Your task to perform on an android device: Do I have any events today? Image 0: 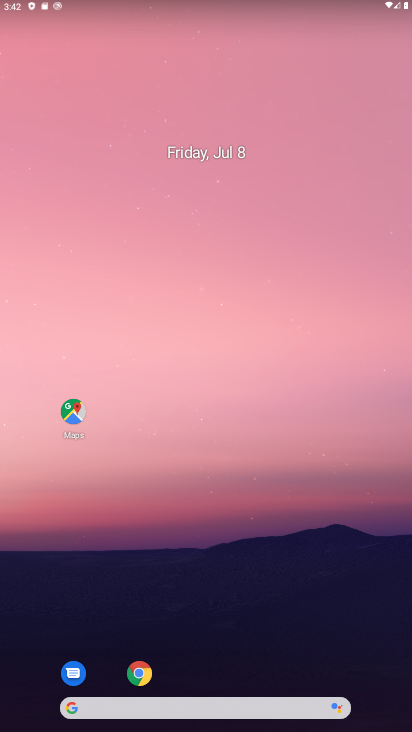
Step 0: drag from (307, 677) to (317, 5)
Your task to perform on an android device: Do I have any events today? Image 1: 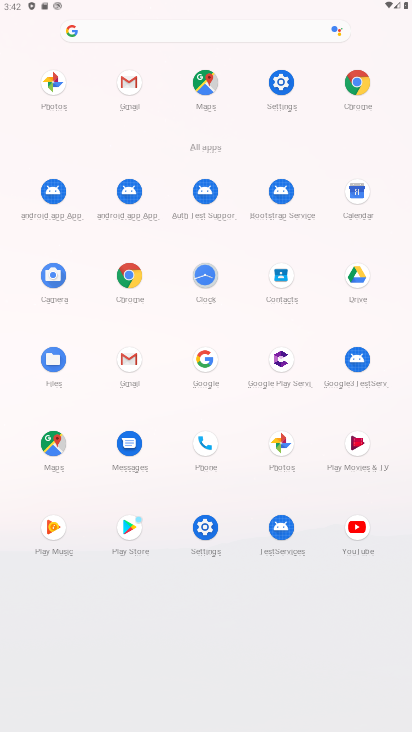
Step 1: click (357, 192)
Your task to perform on an android device: Do I have any events today? Image 2: 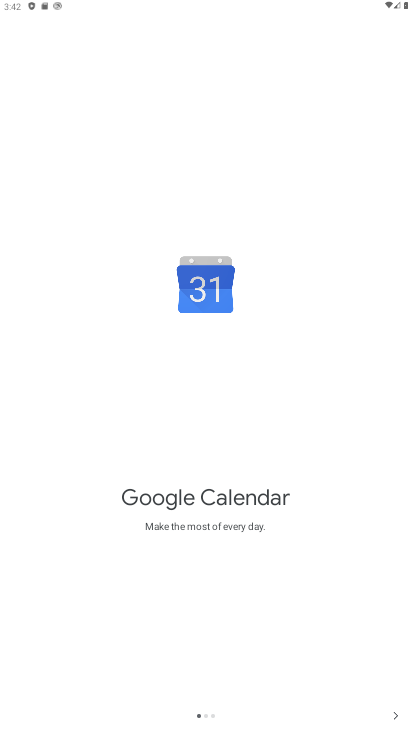
Step 2: click (396, 717)
Your task to perform on an android device: Do I have any events today? Image 3: 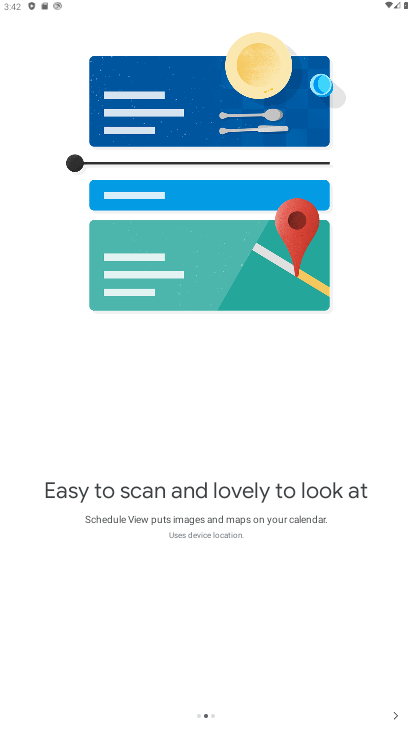
Step 3: click (396, 717)
Your task to perform on an android device: Do I have any events today? Image 4: 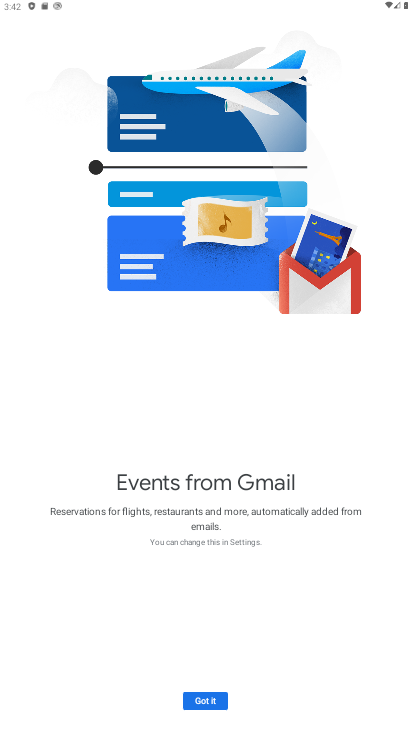
Step 4: click (213, 699)
Your task to perform on an android device: Do I have any events today? Image 5: 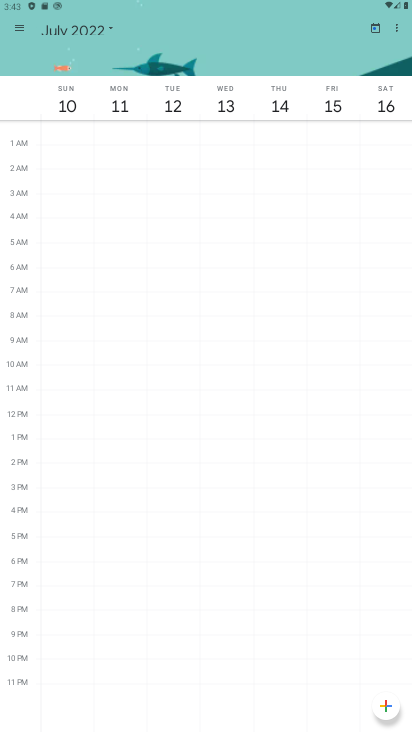
Step 5: click (19, 31)
Your task to perform on an android device: Do I have any events today? Image 6: 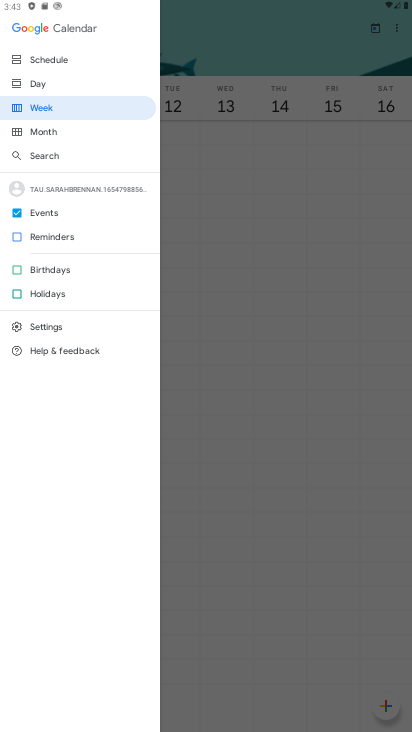
Step 6: click (25, 80)
Your task to perform on an android device: Do I have any events today? Image 7: 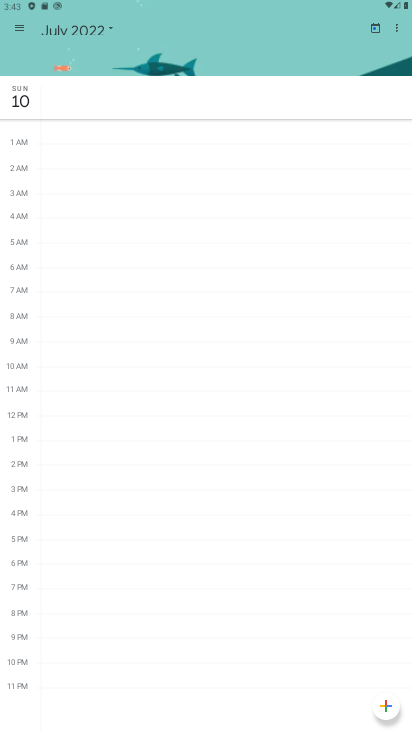
Step 7: click (379, 31)
Your task to perform on an android device: Do I have any events today? Image 8: 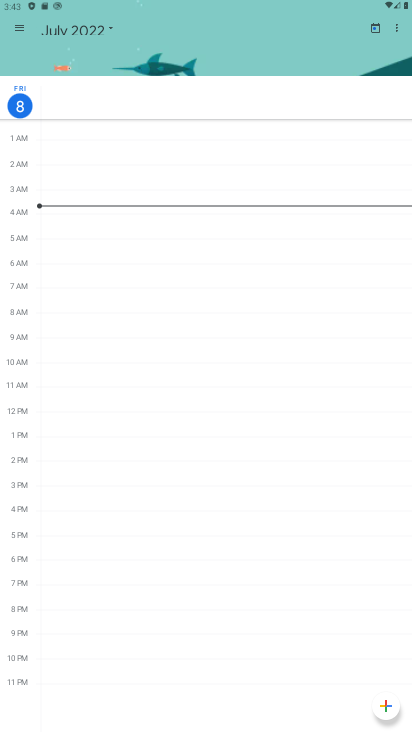
Step 8: click (18, 30)
Your task to perform on an android device: Do I have any events today? Image 9: 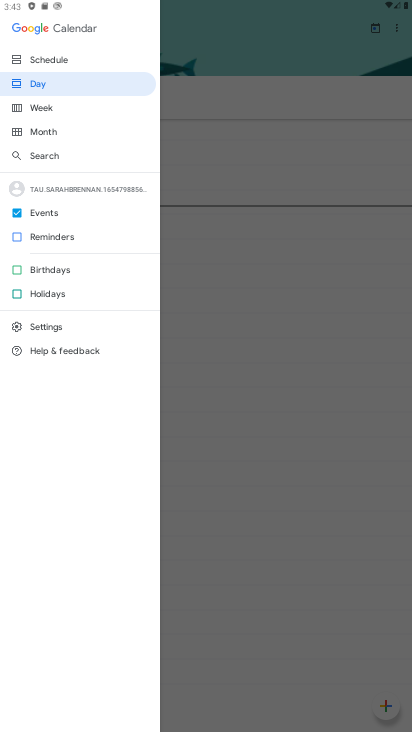
Step 9: click (52, 82)
Your task to perform on an android device: Do I have any events today? Image 10: 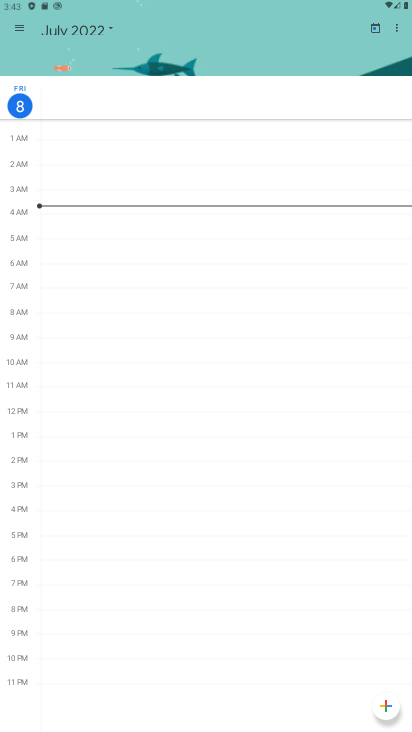
Step 10: task complete